Your task to perform on an android device: toggle translation in the chrome app Image 0: 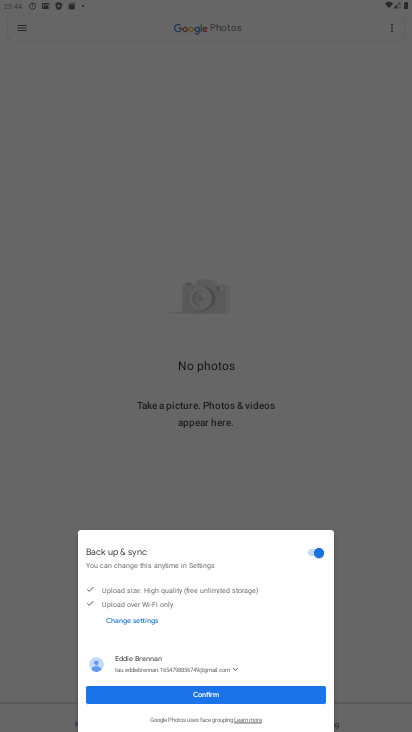
Step 0: press home button
Your task to perform on an android device: toggle translation in the chrome app Image 1: 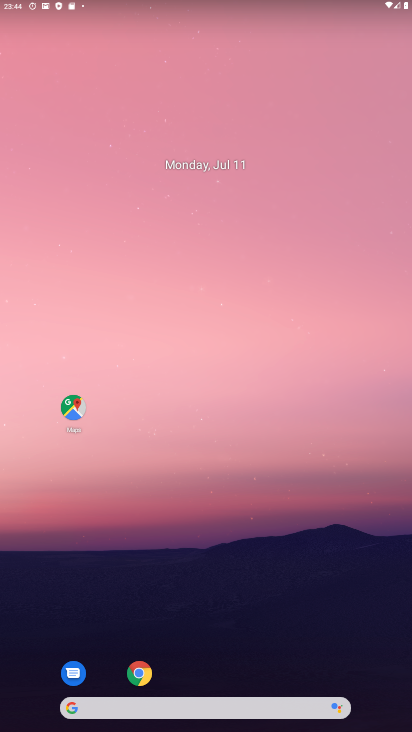
Step 1: drag from (285, 438) to (359, 102)
Your task to perform on an android device: toggle translation in the chrome app Image 2: 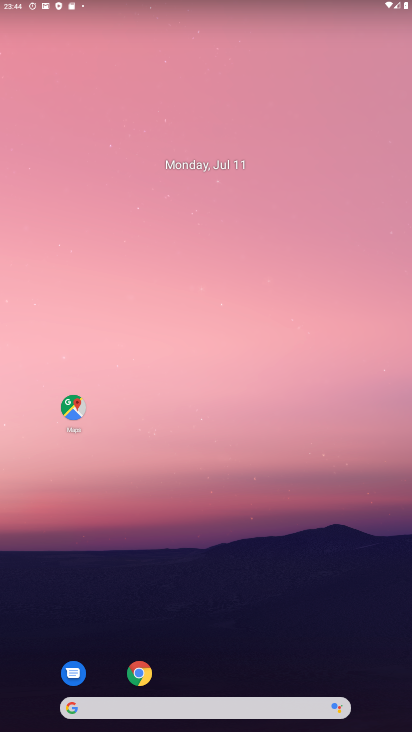
Step 2: drag from (245, 467) to (323, 6)
Your task to perform on an android device: toggle translation in the chrome app Image 3: 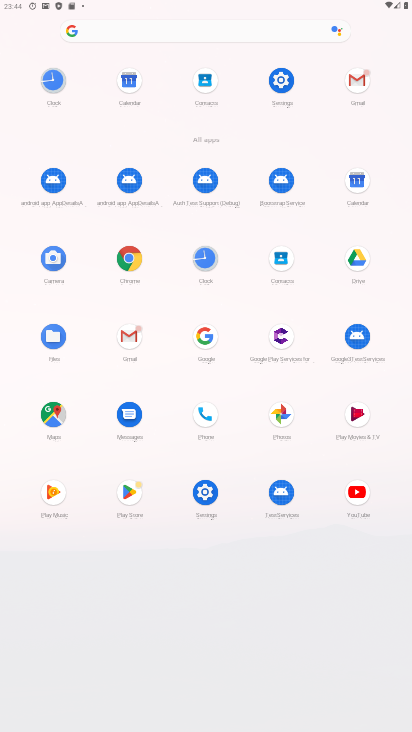
Step 3: click (132, 264)
Your task to perform on an android device: toggle translation in the chrome app Image 4: 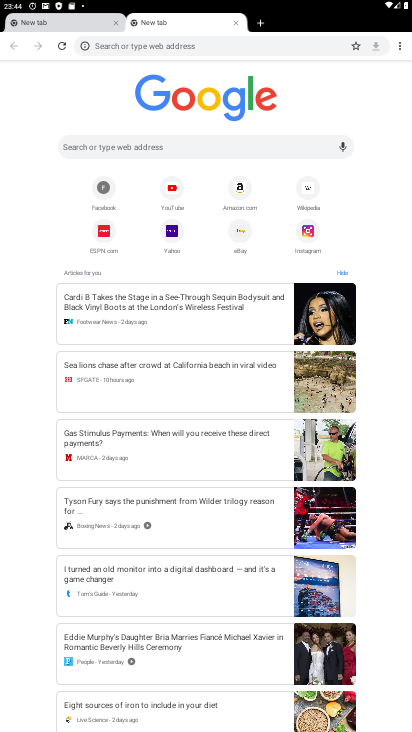
Step 4: drag from (397, 51) to (294, 216)
Your task to perform on an android device: toggle translation in the chrome app Image 5: 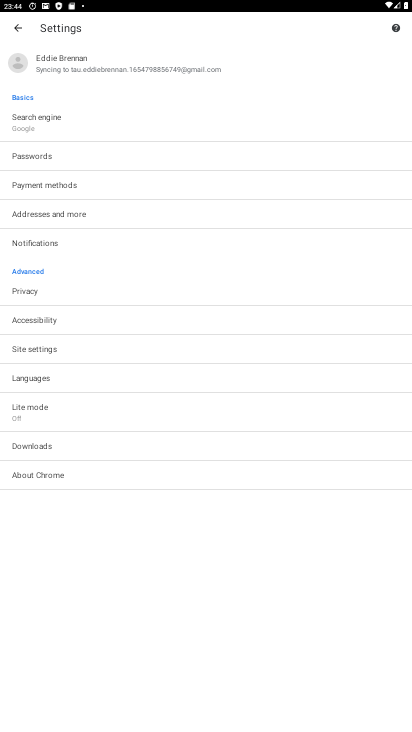
Step 5: click (47, 376)
Your task to perform on an android device: toggle translation in the chrome app Image 6: 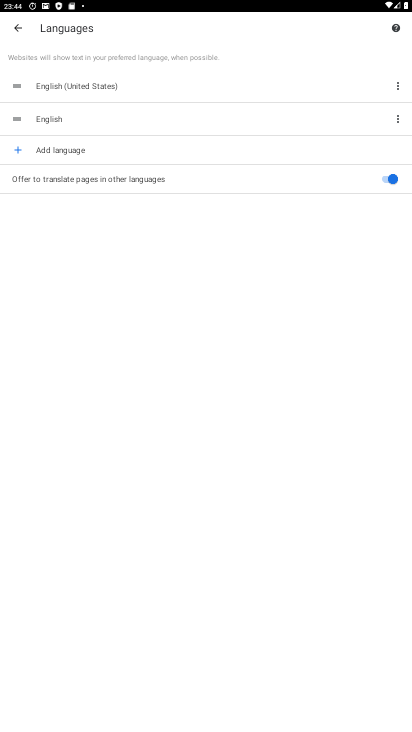
Step 6: click (74, 179)
Your task to perform on an android device: toggle translation in the chrome app Image 7: 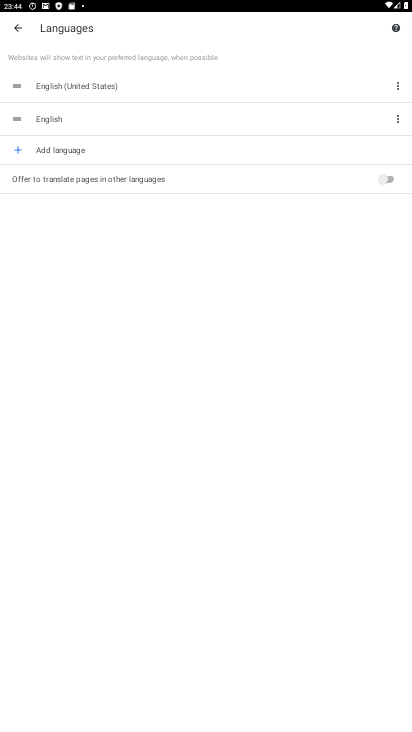
Step 7: task complete